Your task to perform on an android device: check out phone information Image 0: 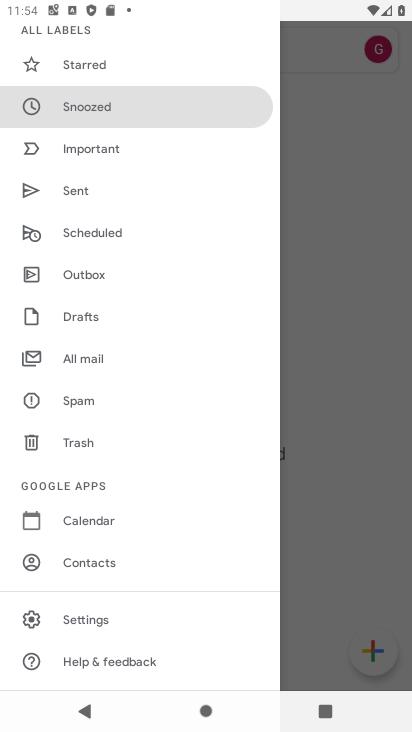
Step 0: press home button
Your task to perform on an android device: check out phone information Image 1: 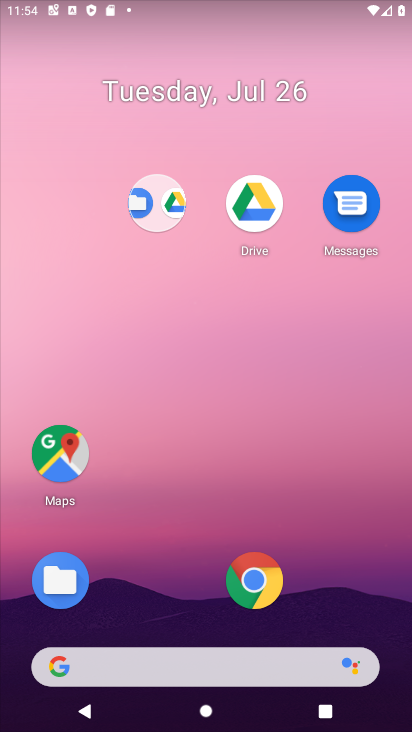
Step 1: drag from (173, 592) to (171, 162)
Your task to perform on an android device: check out phone information Image 2: 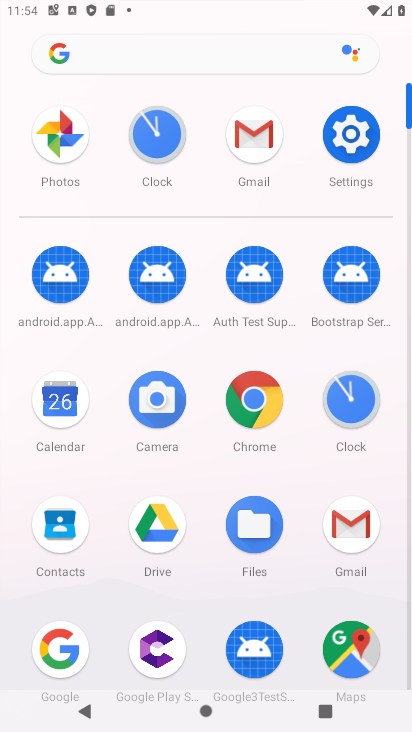
Step 2: click (350, 105)
Your task to perform on an android device: check out phone information Image 3: 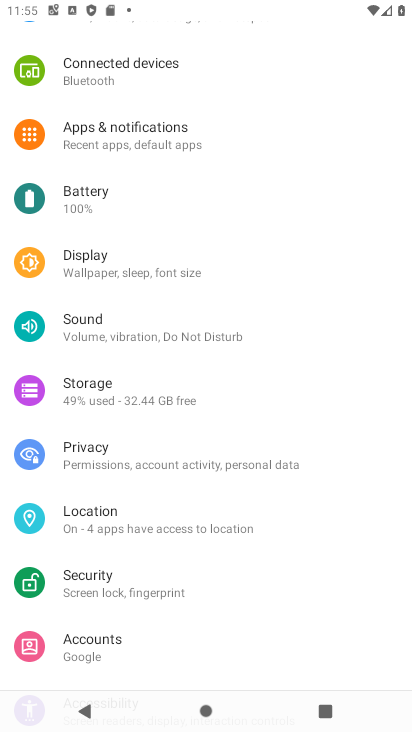
Step 3: drag from (106, 531) to (134, 348)
Your task to perform on an android device: check out phone information Image 4: 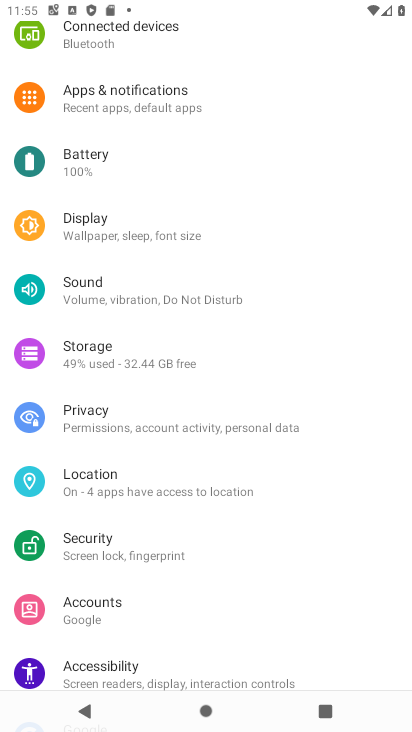
Step 4: drag from (141, 682) to (187, 279)
Your task to perform on an android device: check out phone information Image 5: 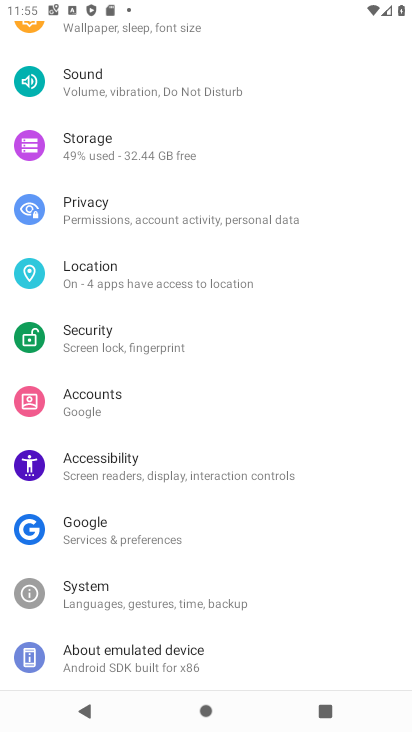
Step 5: drag from (69, 517) to (174, 113)
Your task to perform on an android device: check out phone information Image 6: 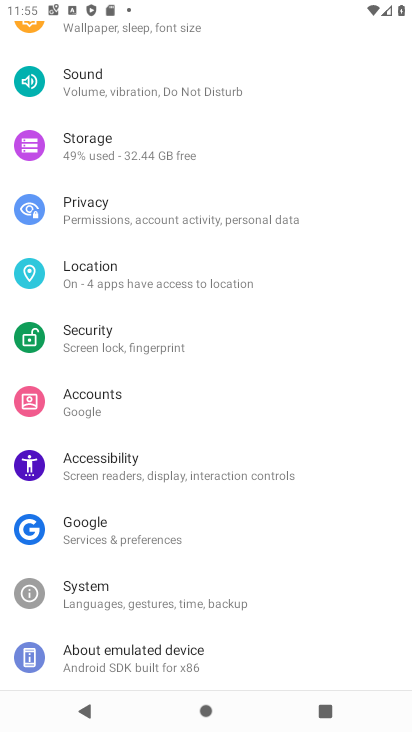
Step 6: click (126, 660)
Your task to perform on an android device: check out phone information Image 7: 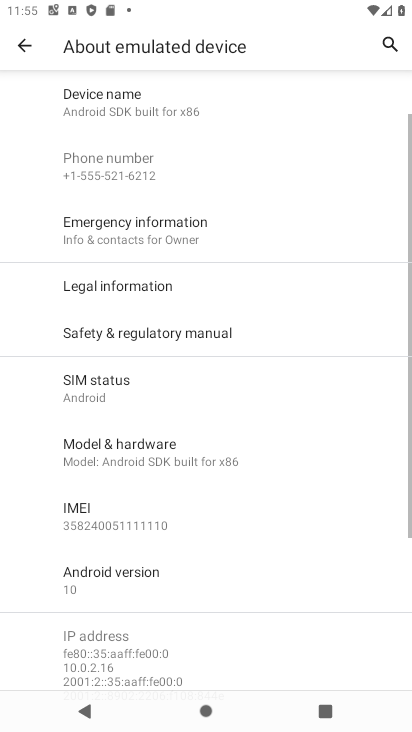
Step 7: task complete